Your task to perform on an android device: What is the news today? Image 0: 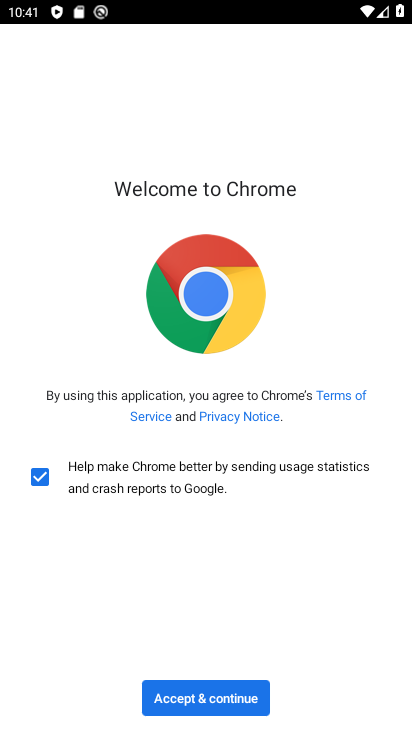
Step 0: click (197, 696)
Your task to perform on an android device: What is the news today? Image 1: 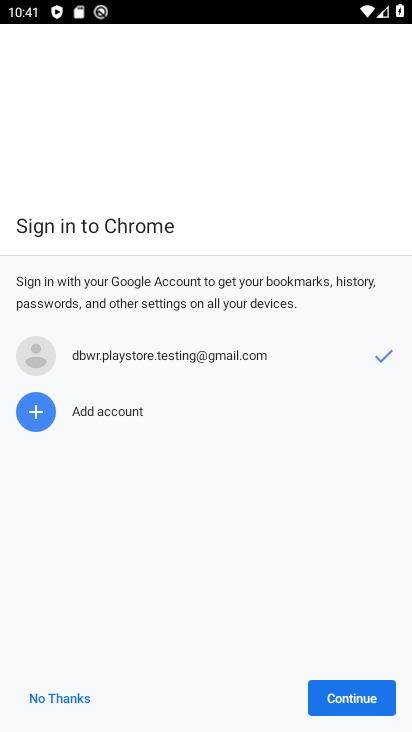
Step 1: click (328, 707)
Your task to perform on an android device: What is the news today? Image 2: 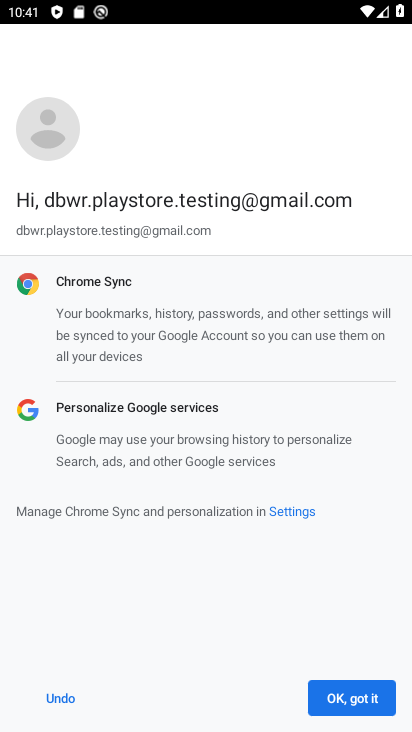
Step 2: click (328, 707)
Your task to perform on an android device: What is the news today? Image 3: 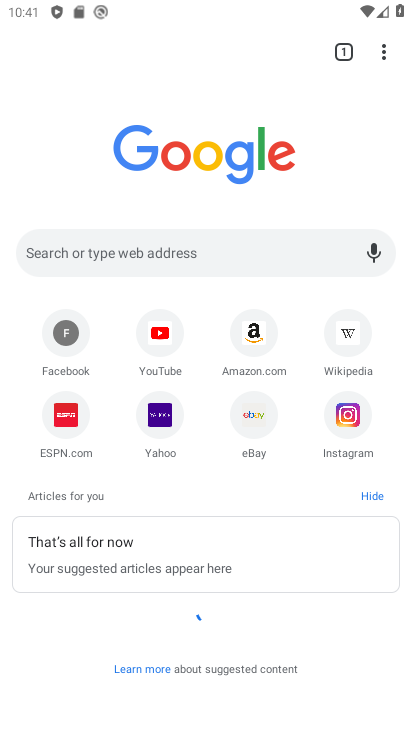
Step 3: click (178, 253)
Your task to perform on an android device: What is the news today? Image 4: 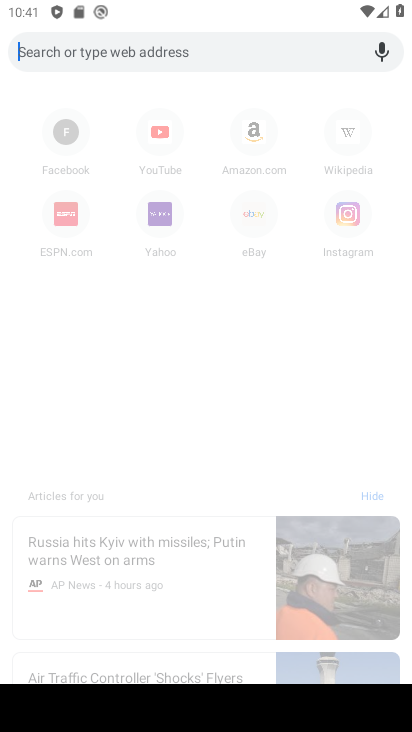
Step 4: type "news today"
Your task to perform on an android device: What is the news today? Image 5: 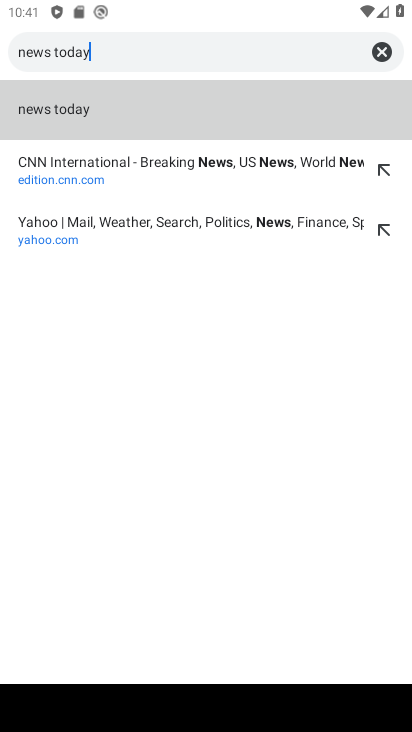
Step 5: type ""
Your task to perform on an android device: What is the news today? Image 6: 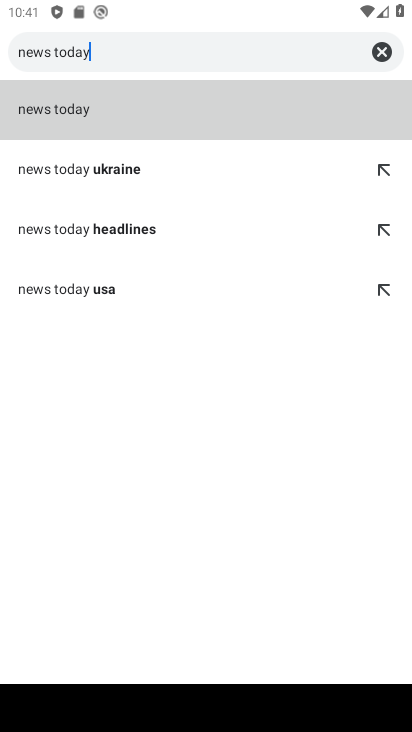
Step 6: click (84, 98)
Your task to perform on an android device: What is the news today? Image 7: 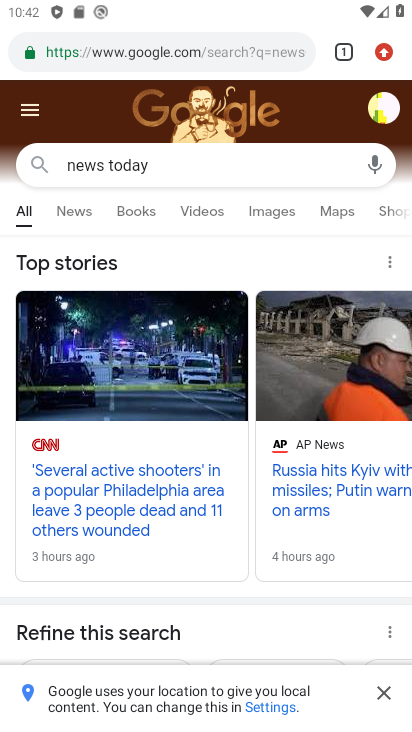
Step 7: click (101, 513)
Your task to perform on an android device: What is the news today? Image 8: 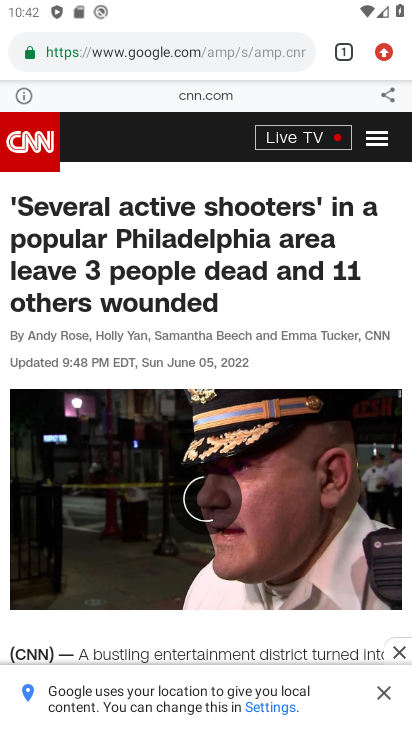
Step 8: task complete